Your task to perform on an android device: Show me productivity apps on the Play Store Image 0: 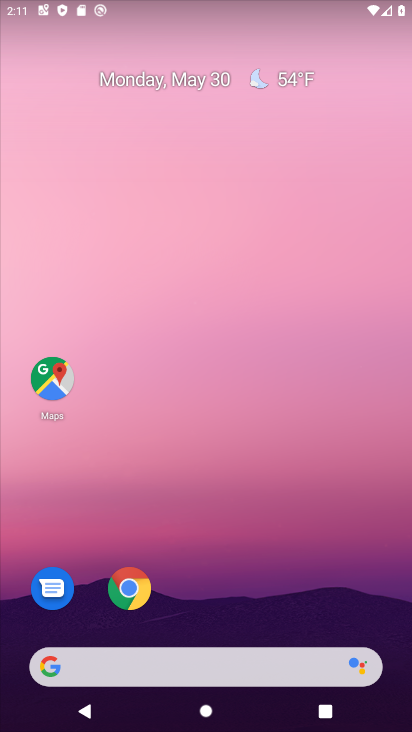
Step 0: drag from (222, 598) to (228, 55)
Your task to perform on an android device: Show me productivity apps on the Play Store Image 1: 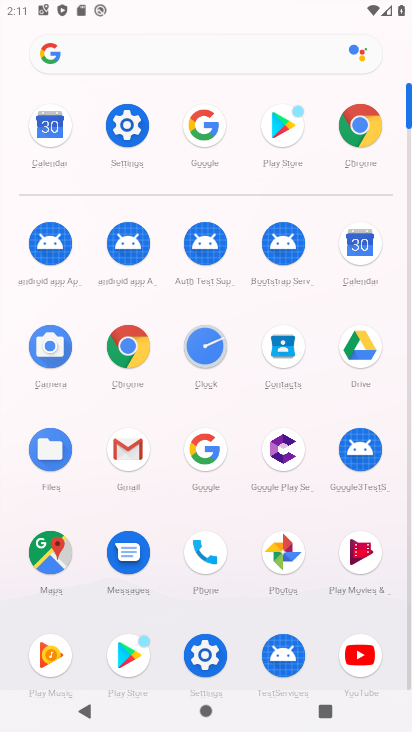
Step 1: click (123, 649)
Your task to perform on an android device: Show me productivity apps on the Play Store Image 2: 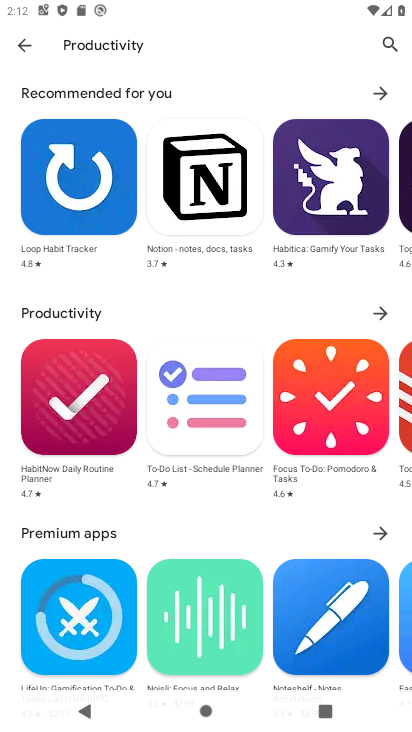
Step 2: task complete